Your task to perform on an android device: Empty the shopping cart on target. Search for jbl flip 4 on target, select the first entry, add it to the cart, then select checkout. Image 0: 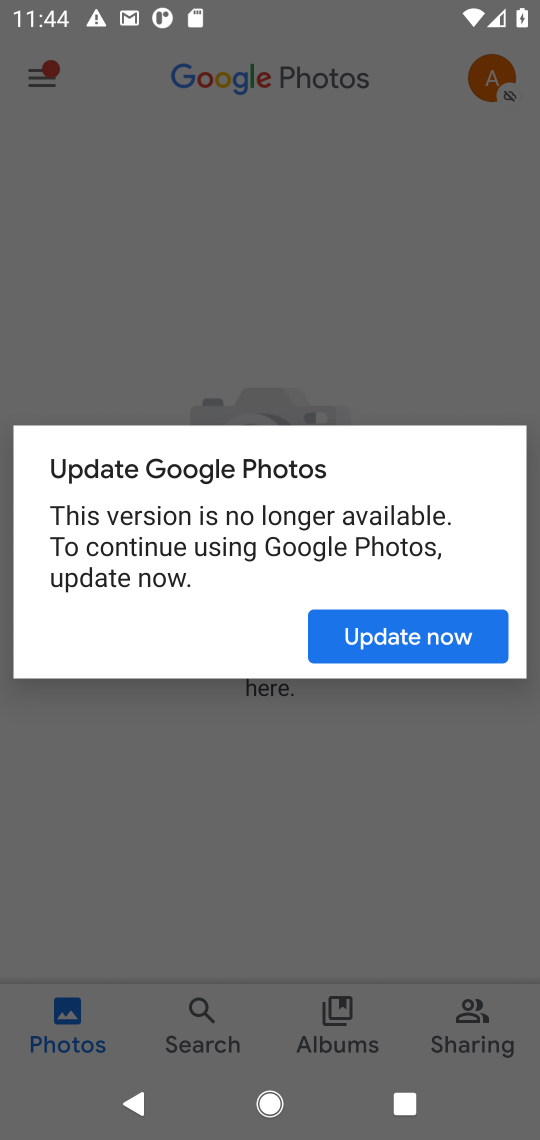
Step 0: press home button
Your task to perform on an android device: Empty the shopping cart on target. Search for jbl flip 4 on target, select the first entry, add it to the cart, then select checkout. Image 1: 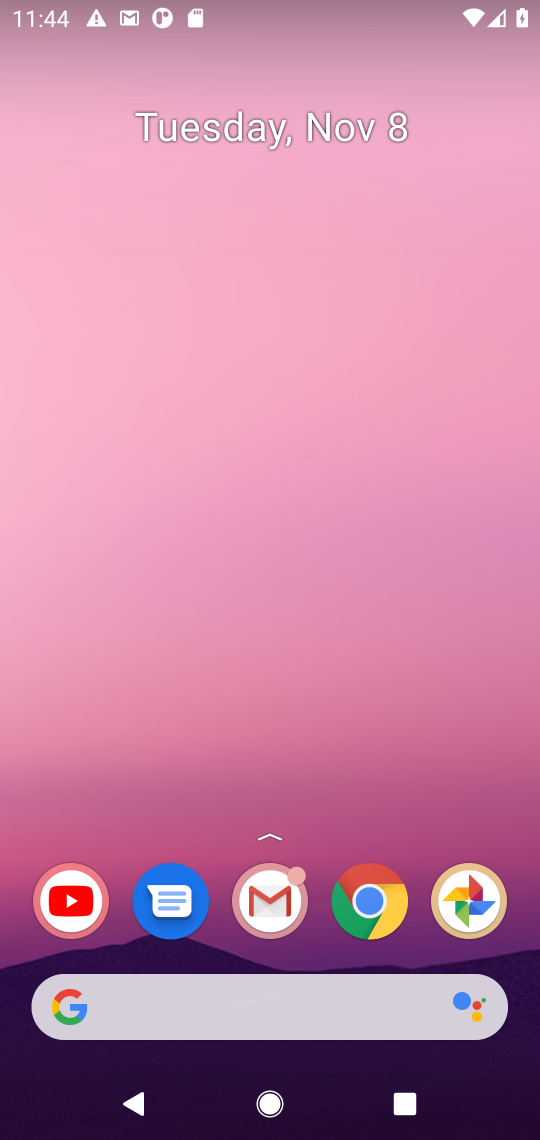
Step 1: click (346, 920)
Your task to perform on an android device: Empty the shopping cart on target. Search for jbl flip 4 on target, select the first entry, add it to the cart, then select checkout. Image 2: 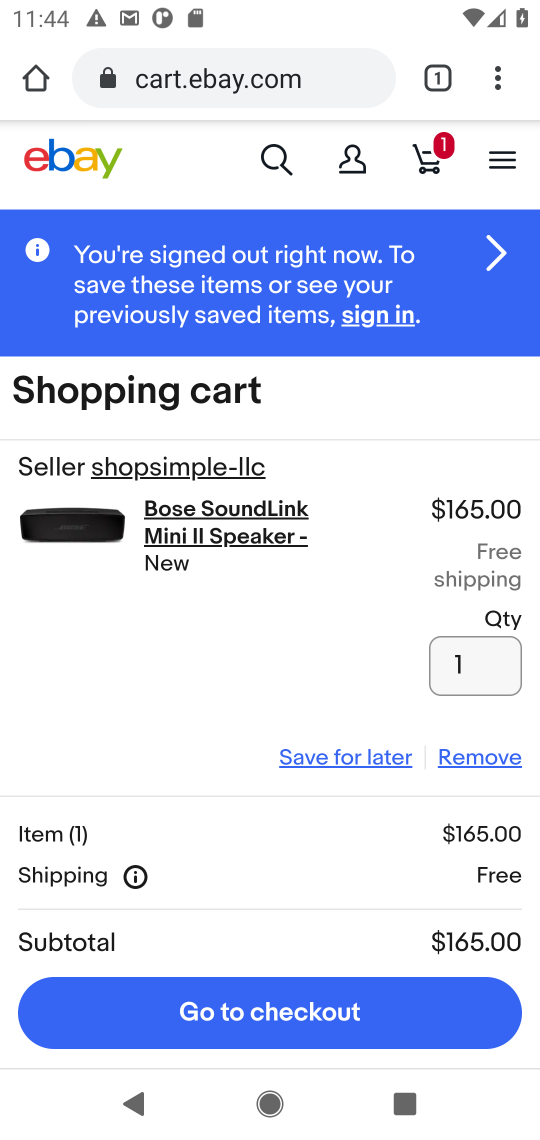
Step 2: click (319, 85)
Your task to perform on an android device: Empty the shopping cart on target. Search for jbl flip 4 on target, select the first entry, add it to the cart, then select checkout. Image 3: 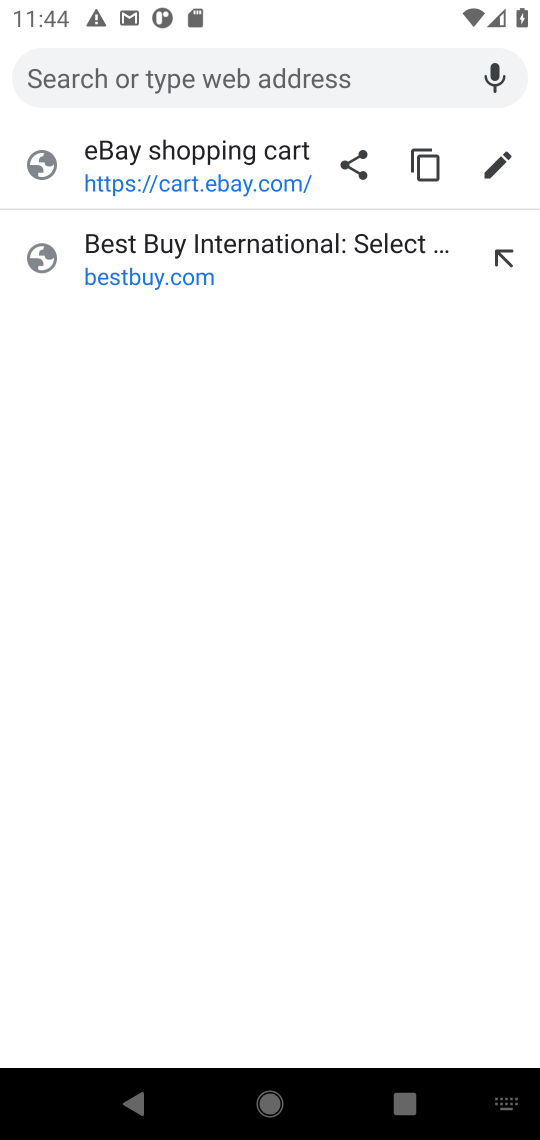
Step 3: press enter
Your task to perform on an android device: Empty the shopping cart on target. Search for jbl flip 4 on target, select the first entry, add it to the cart, then select checkout. Image 4: 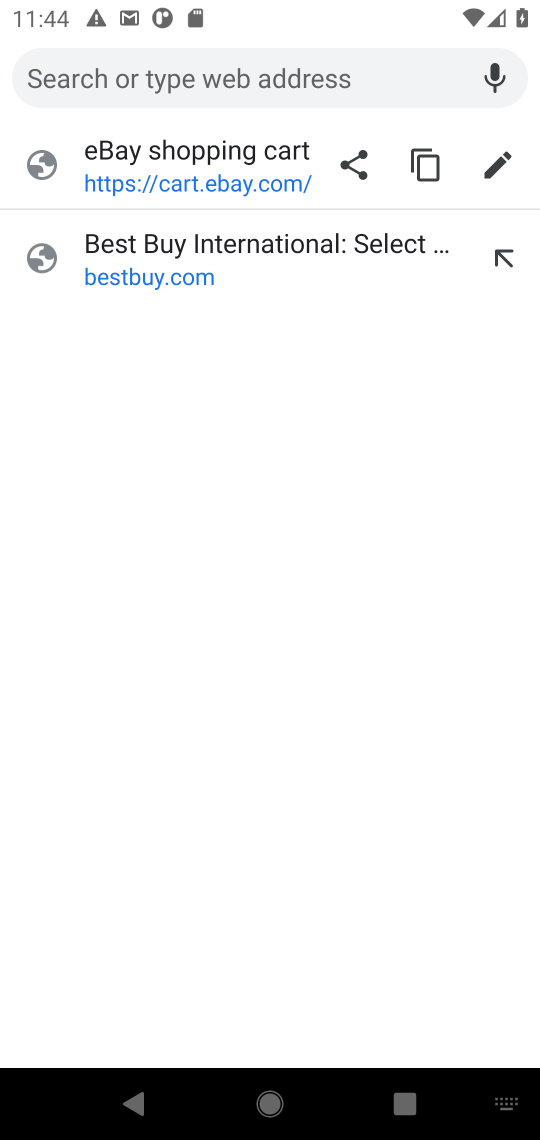
Step 4: type "target"
Your task to perform on an android device: Empty the shopping cart on target. Search for jbl flip 4 on target, select the first entry, add it to the cart, then select checkout. Image 5: 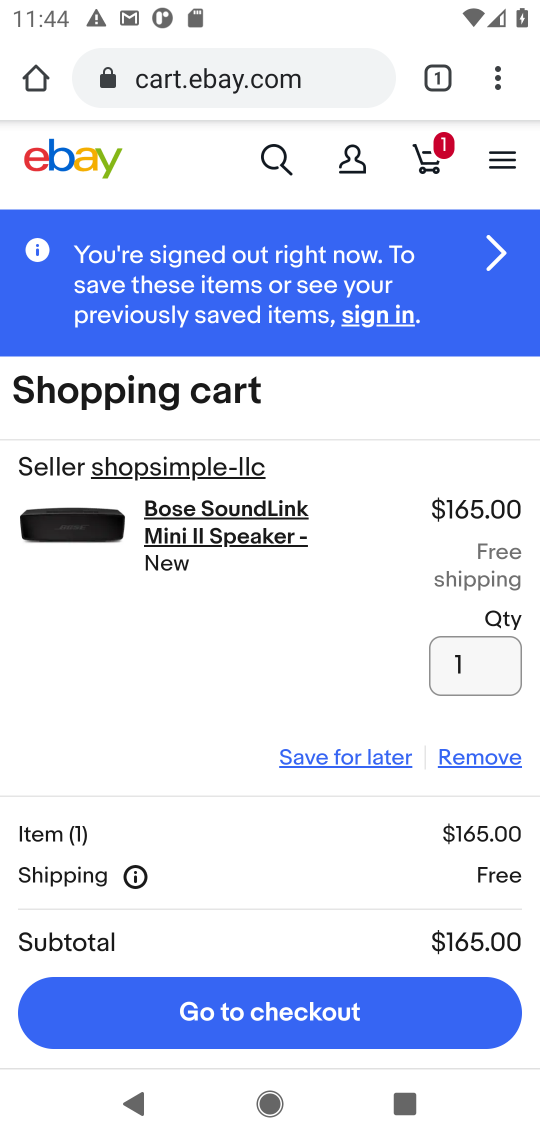
Step 5: click (320, 80)
Your task to perform on an android device: Empty the shopping cart on target. Search for jbl flip 4 on target, select the first entry, add it to the cart, then select checkout. Image 6: 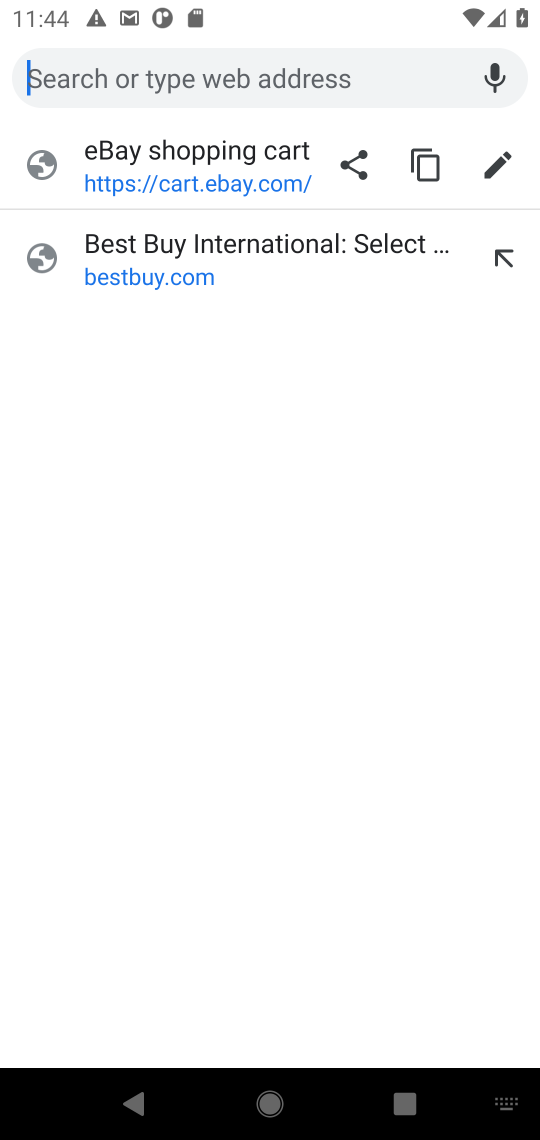
Step 6: press enter
Your task to perform on an android device: Empty the shopping cart on target. Search for jbl flip 4 on target, select the first entry, add it to the cart, then select checkout. Image 7: 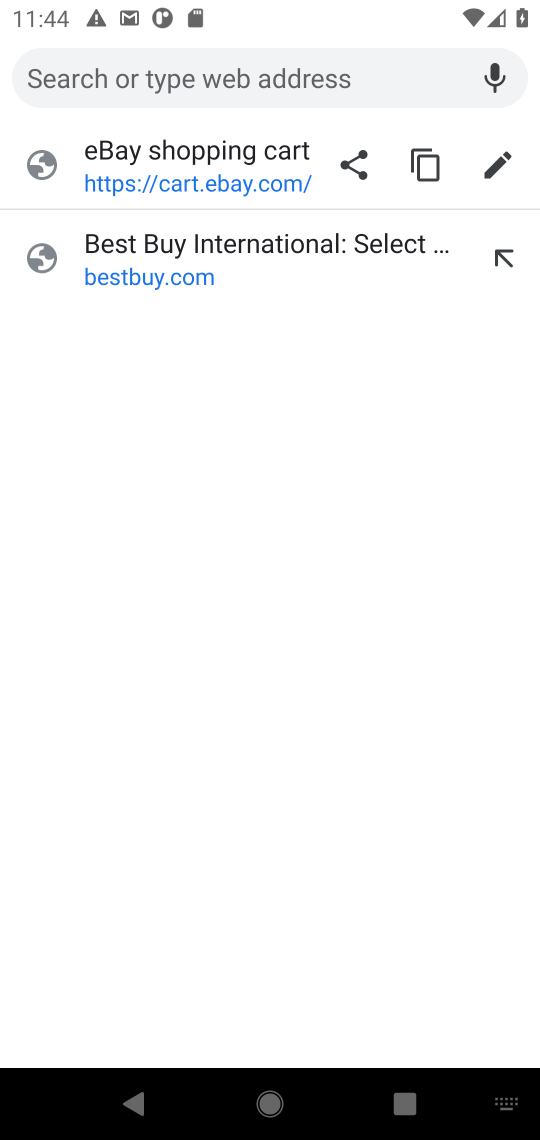
Step 7: type "target"
Your task to perform on an android device: Empty the shopping cart on target. Search for jbl flip 4 on target, select the first entry, add it to the cart, then select checkout. Image 8: 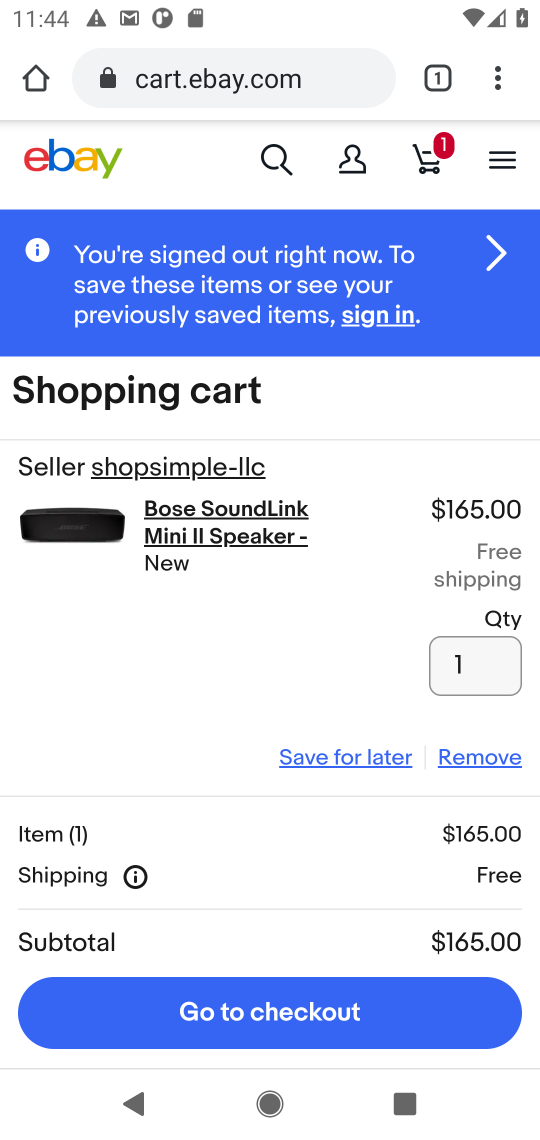
Step 8: click (31, 77)
Your task to perform on an android device: Empty the shopping cart on target. Search for jbl flip 4 on target, select the first entry, add it to the cart, then select checkout. Image 9: 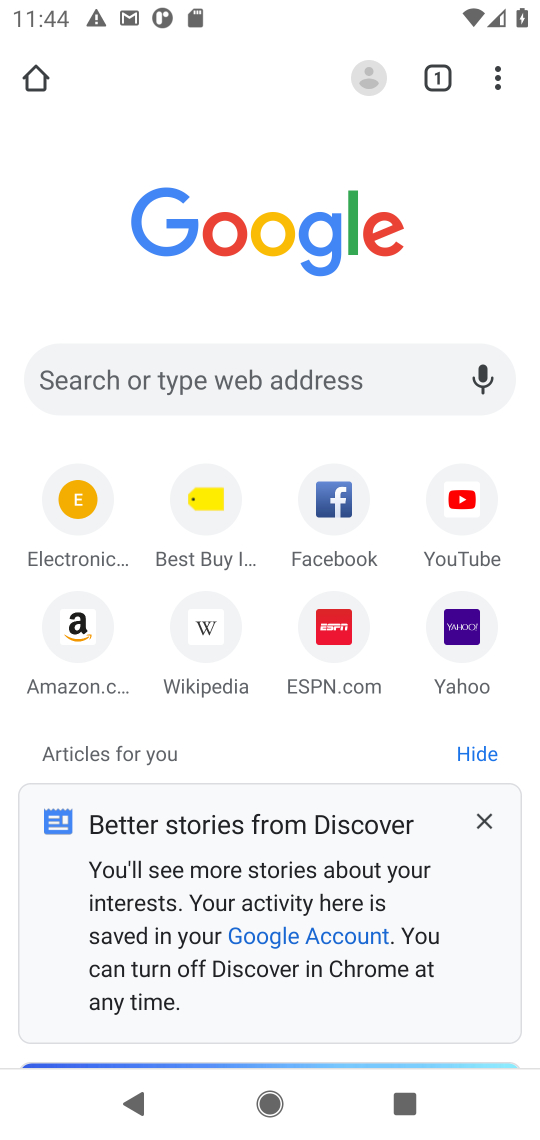
Step 9: click (359, 394)
Your task to perform on an android device: Empty the shopping cart on target. Search for jbl flip 4 on target, select the first entry, add it to the cart, then select checkout. Image 10: 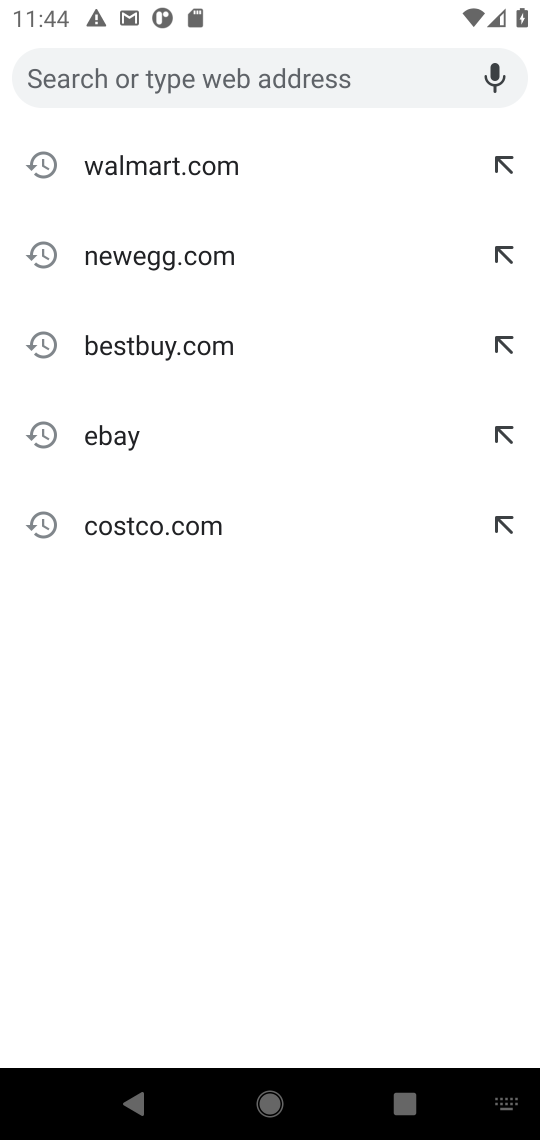
Step 10: type "target"
Your task to perform on an android device: Empty the shopping cart on target. Search for jbl flip 4 on target, select the first entry, add it to the cart, then select checkout. Image 11: 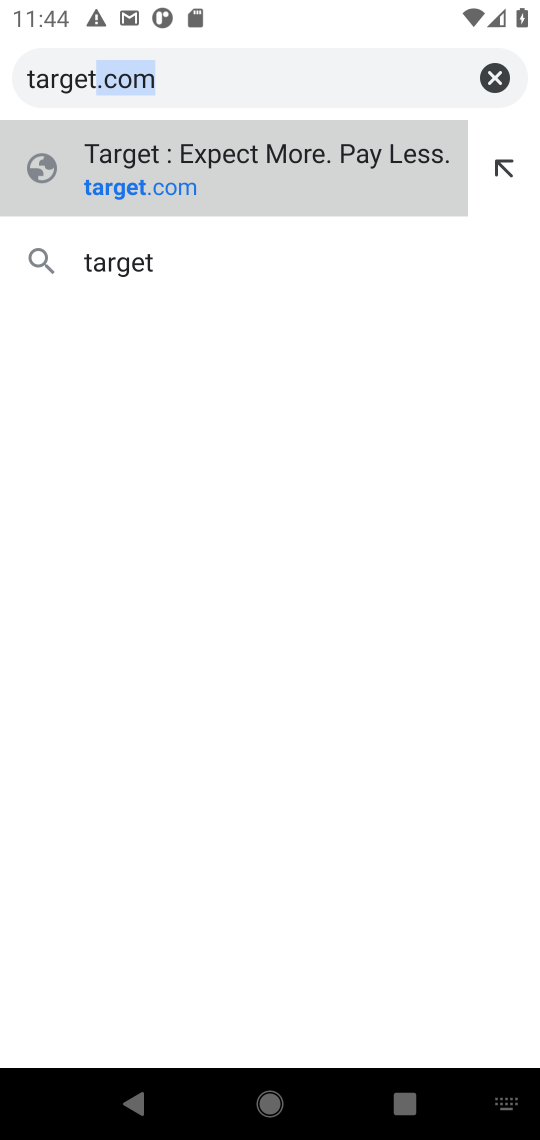
Step 11: press enter
Your task to perform on an android device: Empty the shopping cart on target. Search for jbl flip 4 on target, select the first entry, add it to the cart, then select checkout. Image 12: 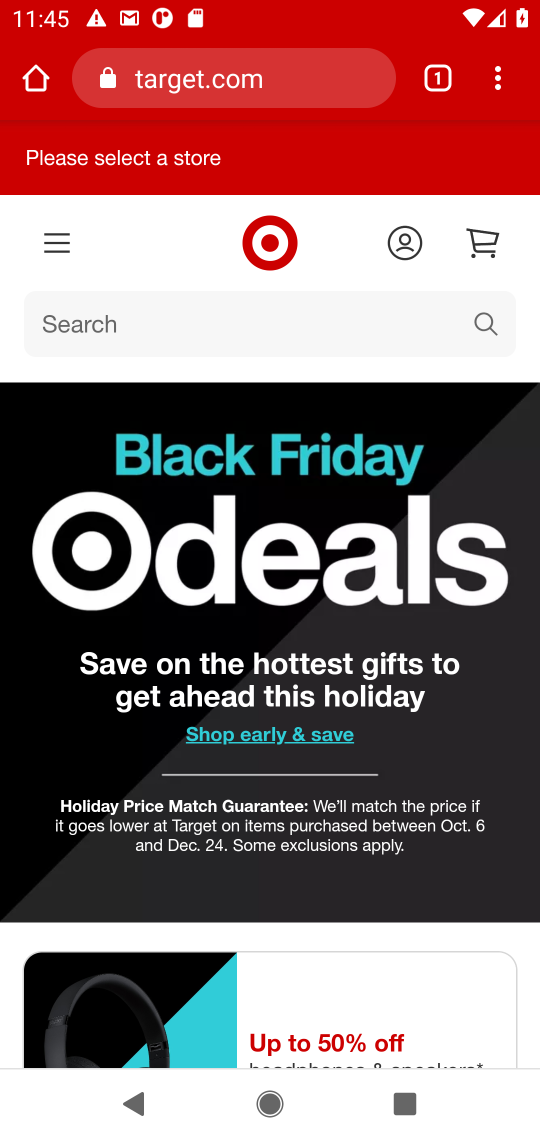
Step 12: click (487, 238)
Your task to perform on an android device: Empty the shopping cart on target. Search for jbl flip 4 on target, select the first entry, add it to the cart, then select checkout. Image 13: 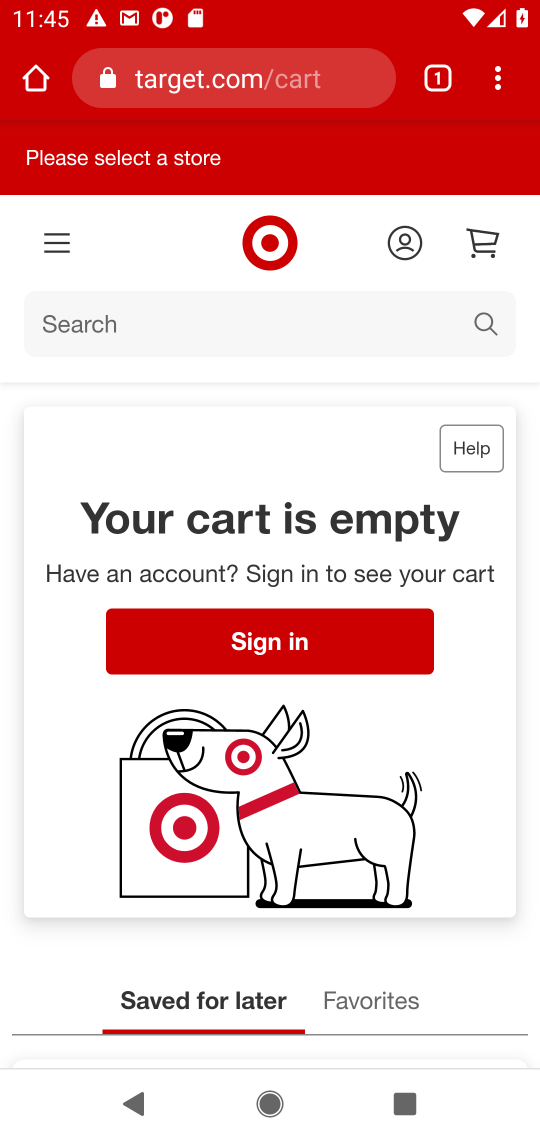
Step 13: click (471, 321)
Your task to perform on an android device: Empty the shopping cart on target. Search for jbl flip 4 on target, select the first entry, add it to the cart, then select checkout. Image 14: 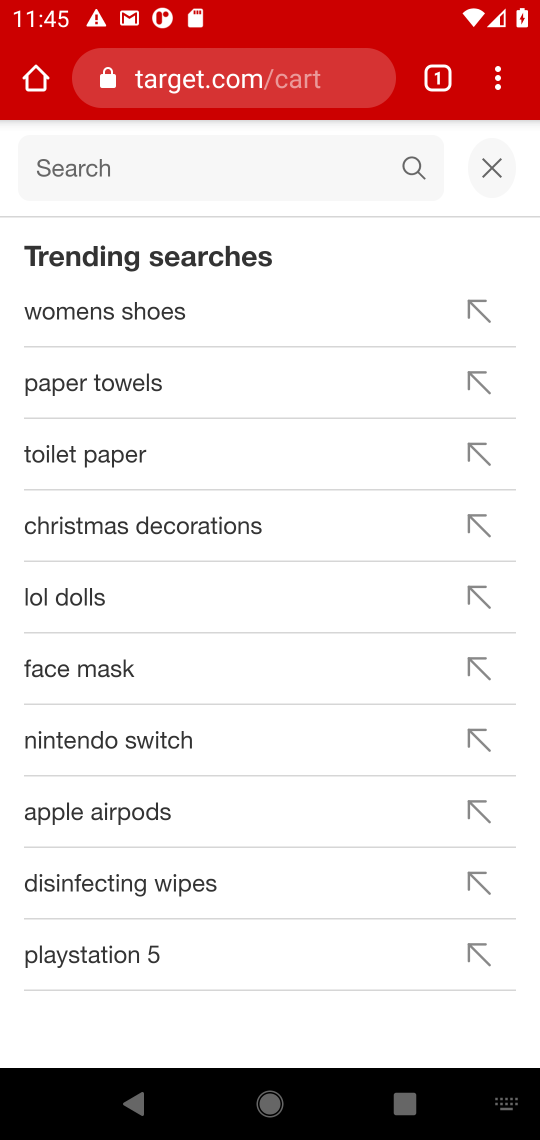
Step 14: type " jbl flip 4"
Your task to perform on an android device: Empty the shopping cart on target. Search for jbl flip 4 on target, select the first entry, add it to the cart, then select checkout. Image 15: 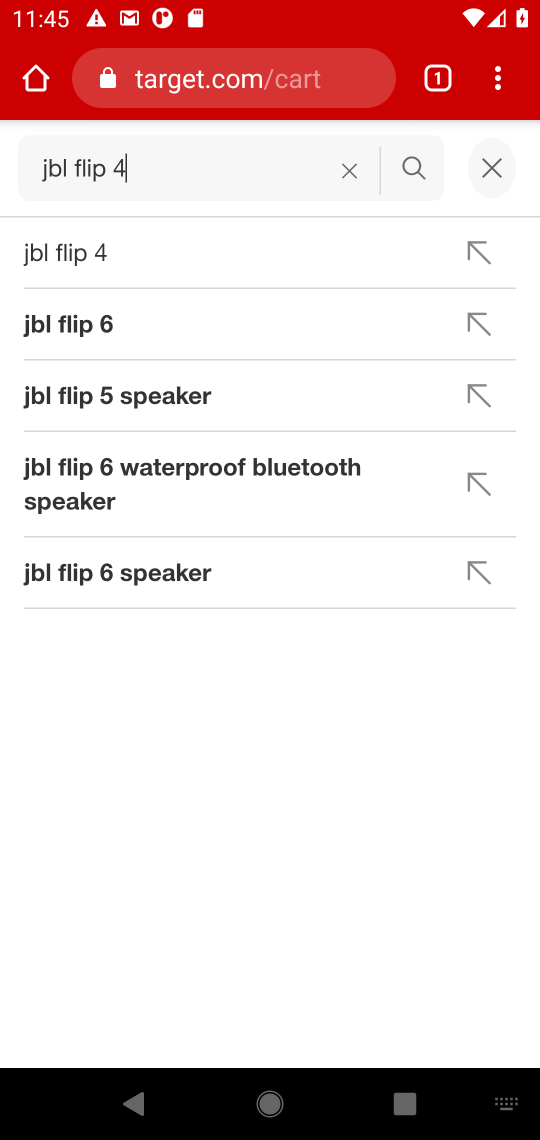
Step 15: press enter
Your task to perform on an android device: Empty the shopping cart on target. Search for jbl flip 4 on target, select the first entry, add it to the cart, then select checkout. Image 16: 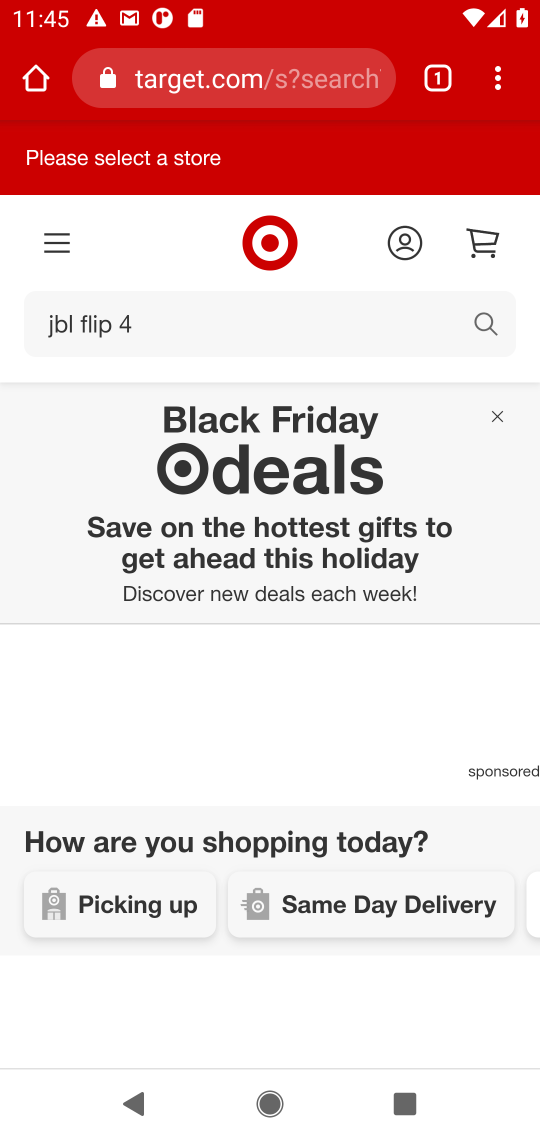
Step 16: task complete